Your task to perform on an android device: Go to display settings Image 0: 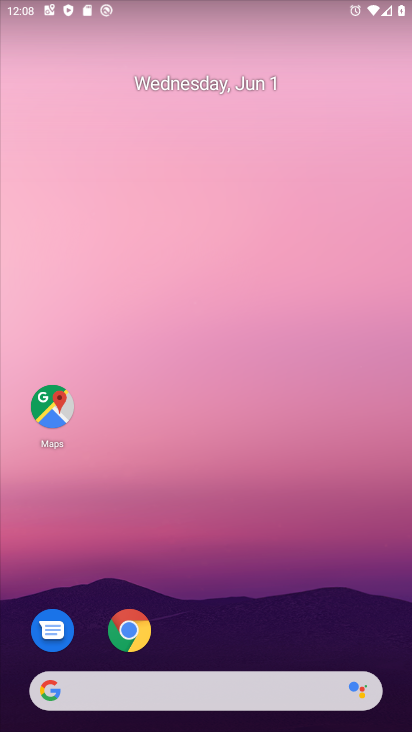
Step 0: drag from (158, 723) to (260, 3)
Your task to perform on an android device: Go to display settings Image 1: 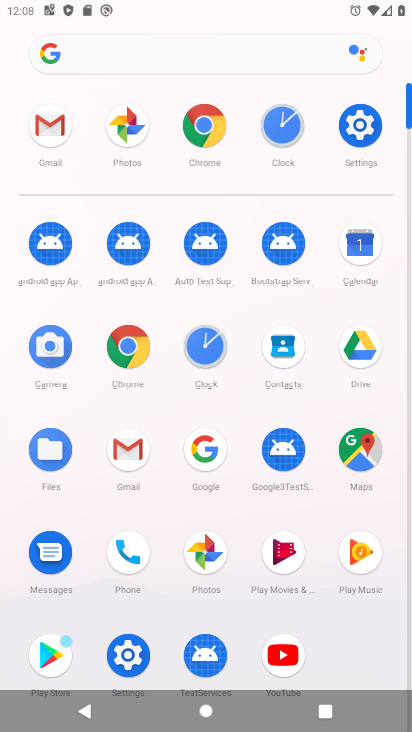
Step 1: click (350, 133)
Your task to perform on an android device: Go to display settings Image 2: 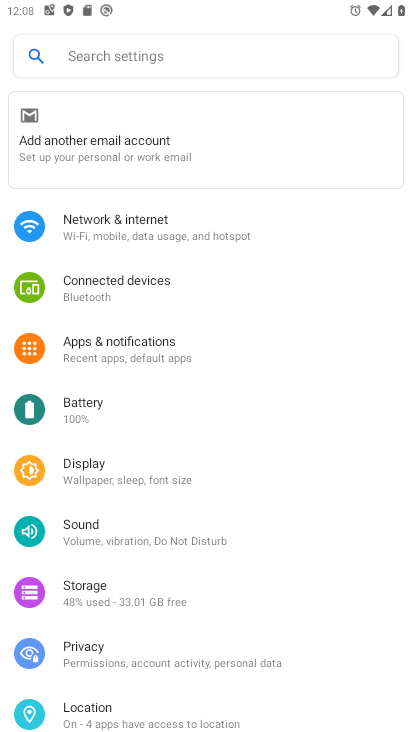
Step 2: click (97, 482)
Your task to perform on an android device: Go to display settings Image 3: 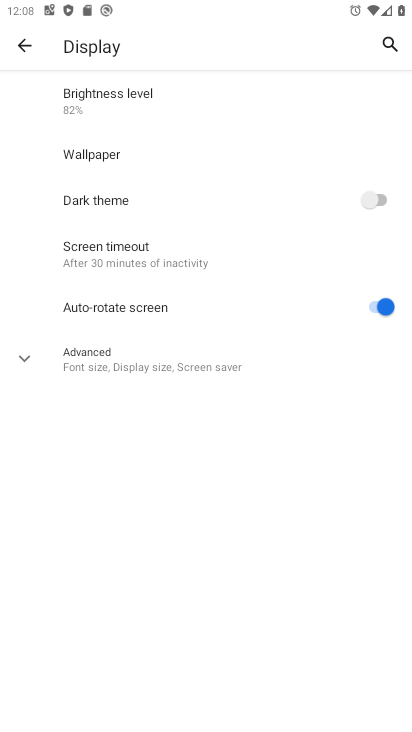
Step 3: task complete